Your task to perform on an android device: open sync settings in chrome Image 0: 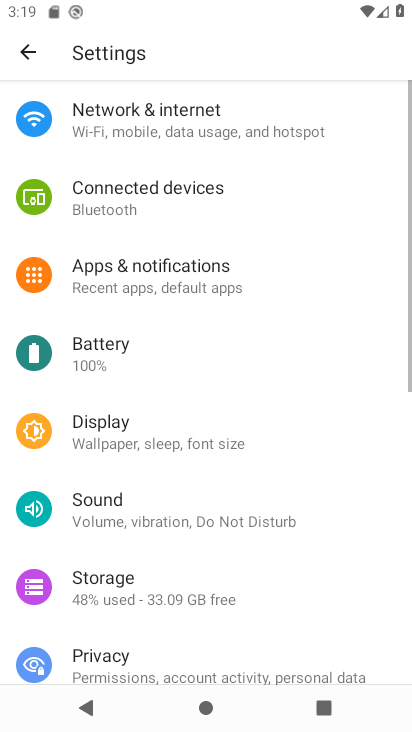
Step 0: press back button
Your task to perform on an android device: open sync settings in chrome Image 1: 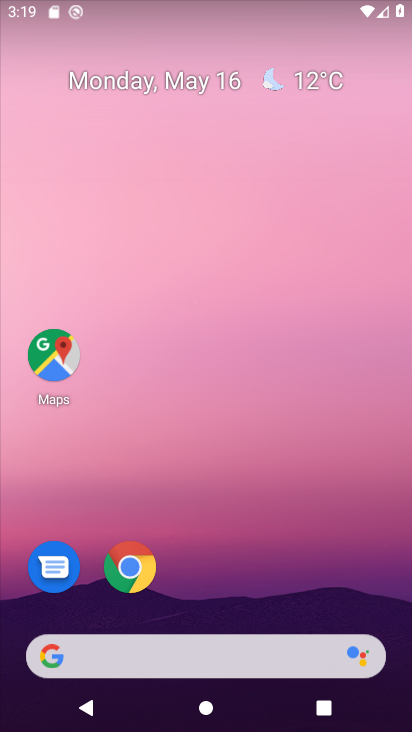
Step 1: drag from (240, 528) to (203, 5)
Your task to perform on an android device: open sync settings in chrome Image 2: 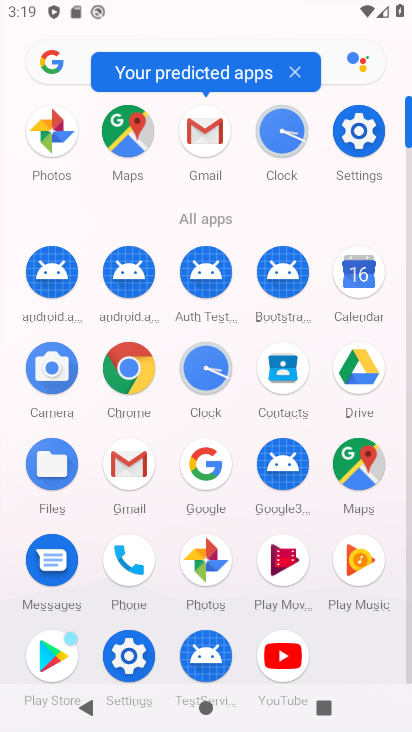
Step 2: drag from (8, 517) to (22, 173)
Your task to perform on an android device: open sync settings in chrome Image 3: 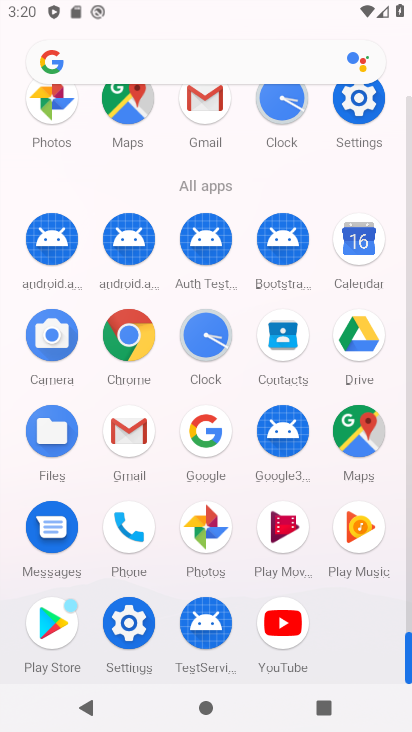
Step 3: click (129, 334)
Your task to perform on an android device: open sync settings in chrome Image 4: 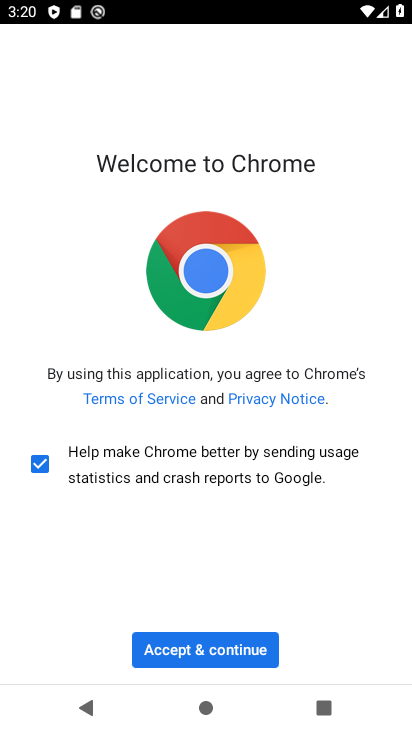
Step 4: click (211, 630)
Your task to perform on an android device: open sync settings in chrome Image 5: 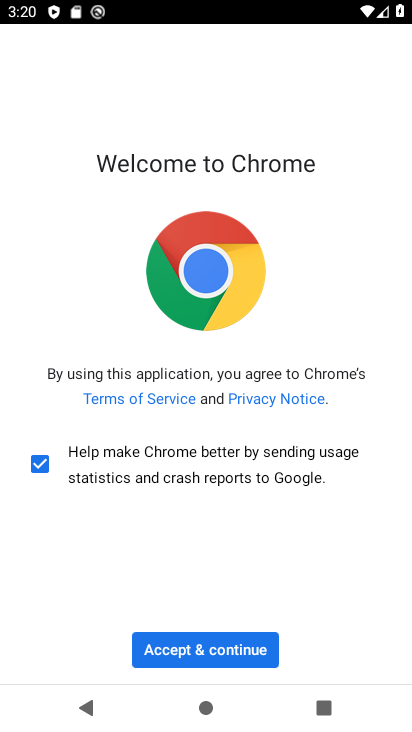
Step 5: click (227, 643)
Your task to perform on an android device: open sync settings in chrome Image 6: 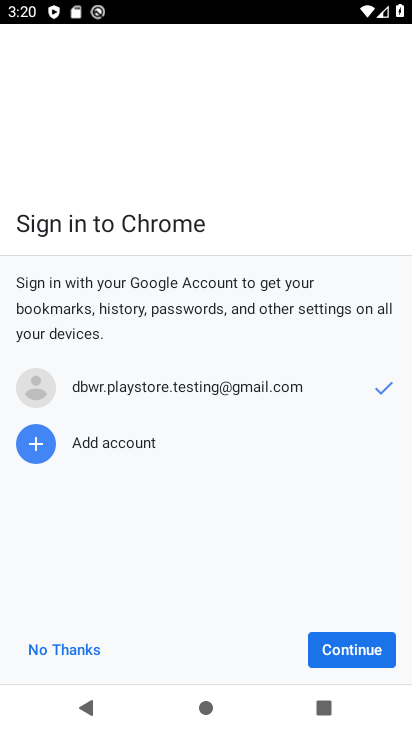
Step 6: click (333, 646)
Your task to perform on an android device: open sync settings in chrome Image 7: 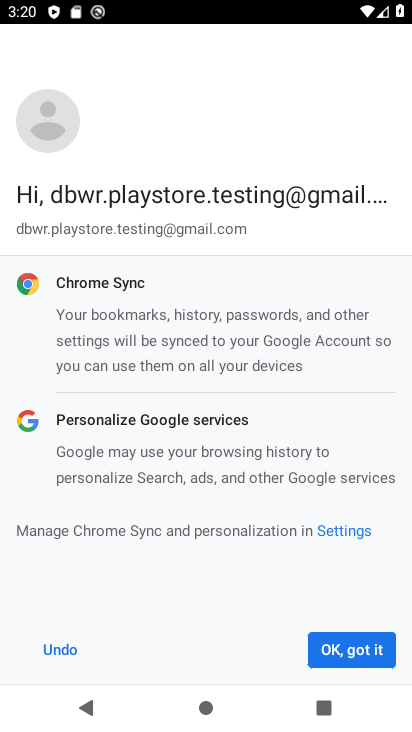
Step 7: click (344, 647)
Your task to perform on an android device: open sync settings in chrome Image 8: 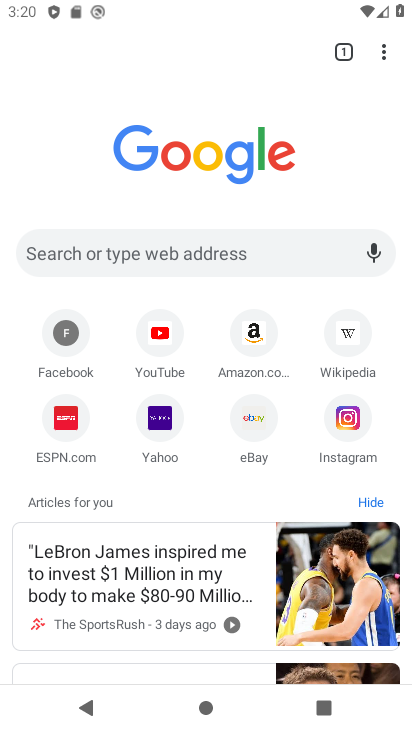
Step 8: drag from (381, 49) to (237, 435)
Your task to perform on an android device: open sync settings in chrome Image 9: 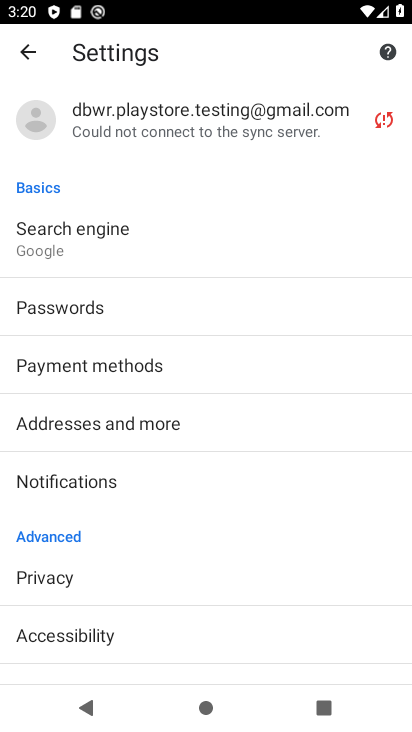
Step 9: click (177, 140)
Your task to perform on an android device: open sync settings in chrome Image 10: 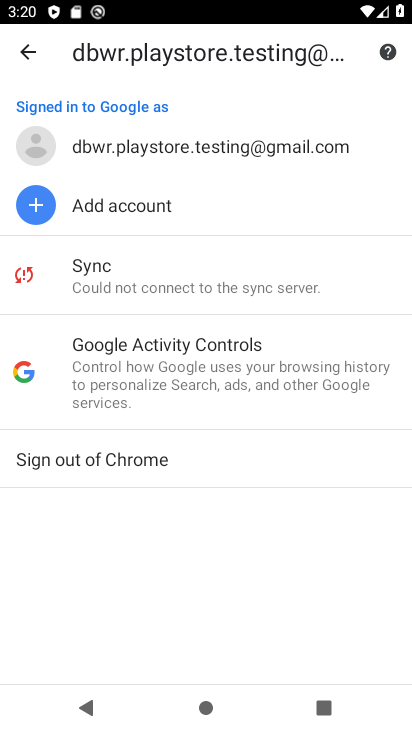
Step 10: click (158, 264)
Your task to perform on an android device: open sync settings in chrome Image 11: 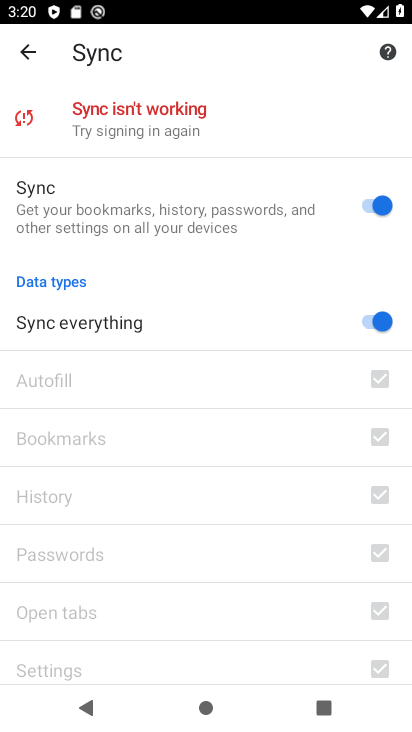
Step 11: task complete